Your task to perform on an android device: Open my contact list Image 0: 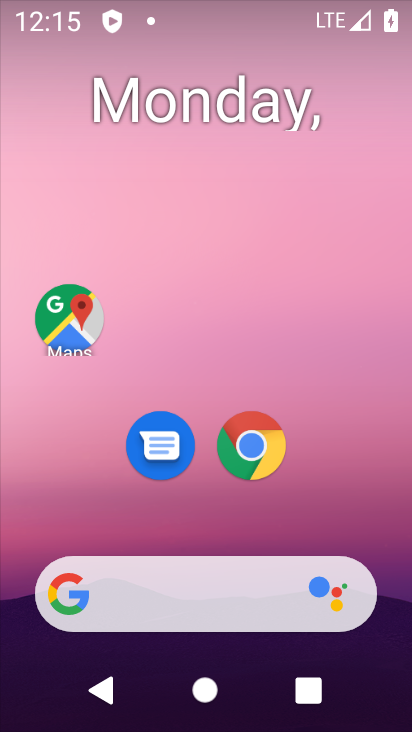
Step 0: drag from (193, 539) to (228, 321)
Your task to perform on an android device: Open my contact list Image 1: 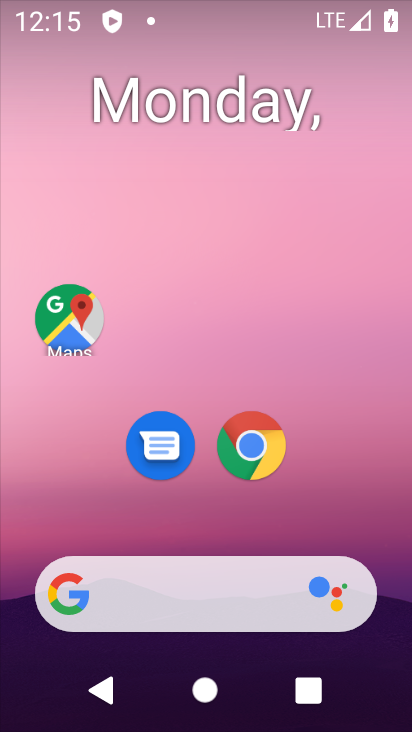
Step 1: drag from (171, 546) to (204, 99)
Your task to perform on an android device: Open my contact list Image 2: 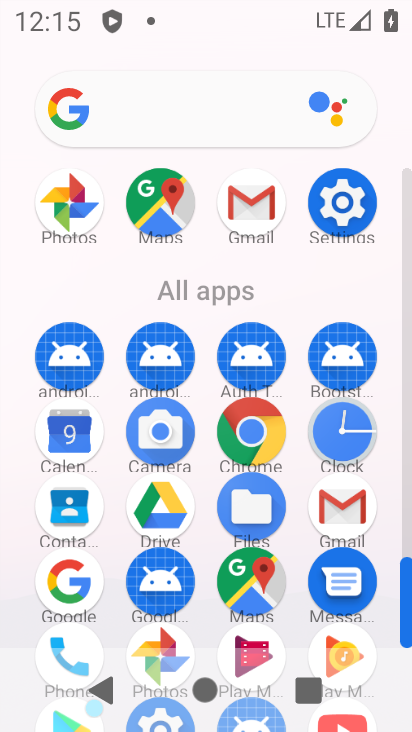
Step 2: click (83, 513)
Your task to perform on an android device: Open my contact list Image 3: 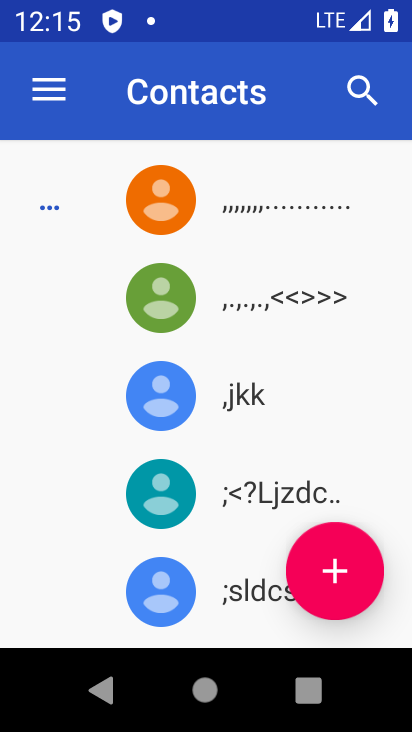
Step 3: task complete